Your task to perform on an android device: Turn on the flashlight Image 0: 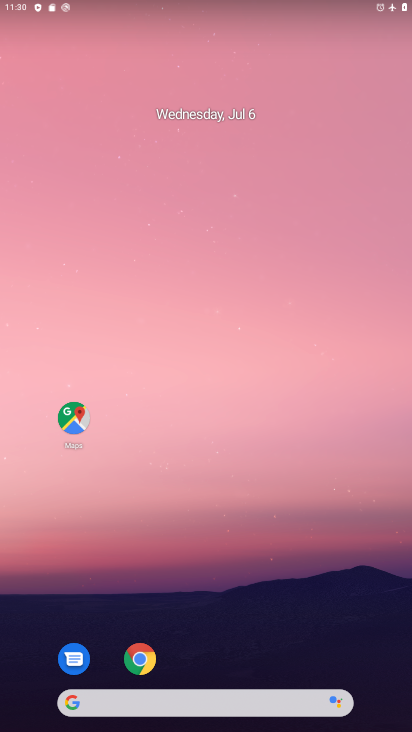
Step 0: drag from (220, 652) to (286, 13)
Your task to perform on an android device: Turn on the flashlight Image 1: 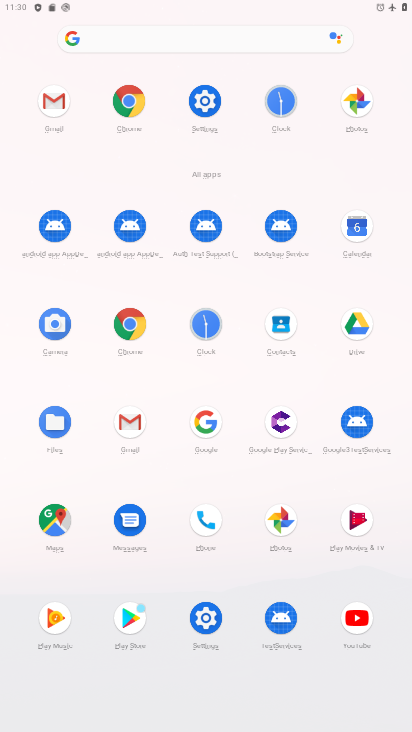
Step 1: click (213, 618)
Your task to perform on an android device: Turn on the flashlight Image 2: 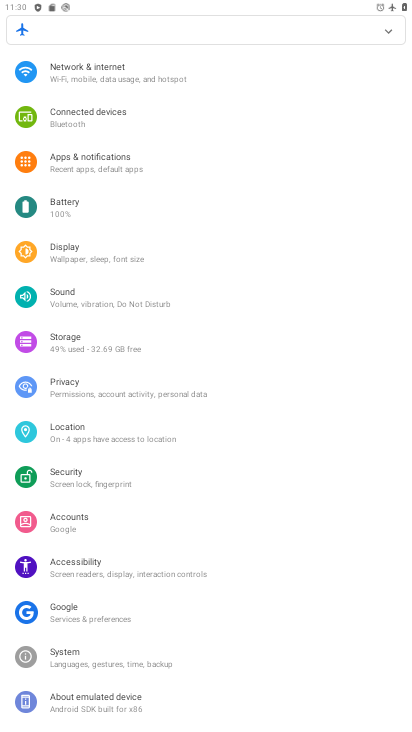
Step 2: task complete